Your task to perform on an android device: Set an alarm for 8am Image 0: 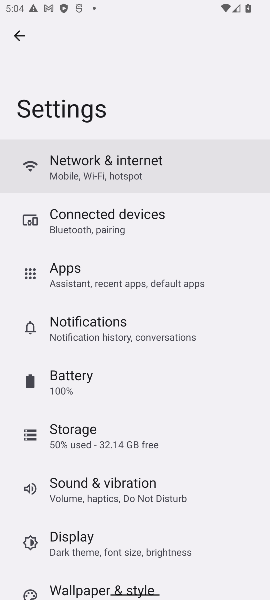
Step 0: press home button
Your task to perform on an android device: Set an alarm for 8am Image 1: 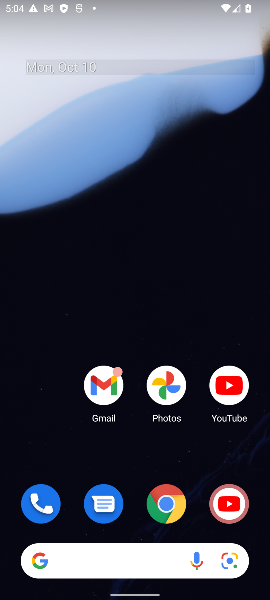
Step 1: drag from (74, 424) to (92, 65)
Your task to perform on an android device: Set an alarm for 8am Image 2: 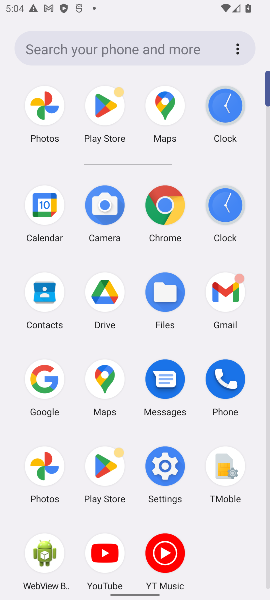
Step 2: click (224, 195)
Your task to perform on an android device: Set an alarm for 8am Image 3: 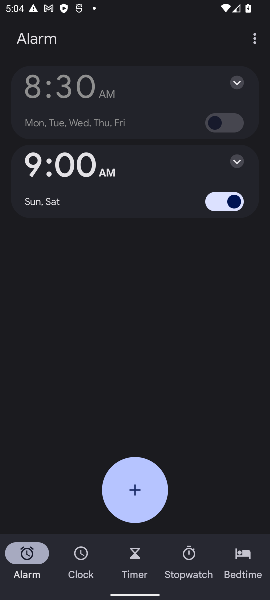
Step 3: click (139, 494)
Your task to perform on an android device: Set an alarm for 8am Image 4: 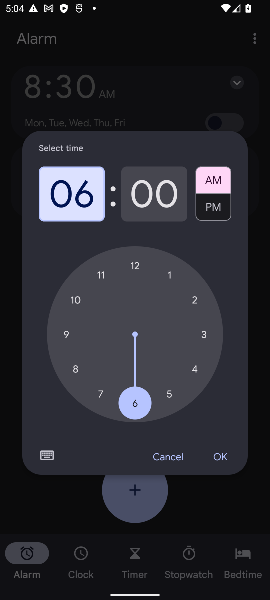
Step 4: click (73, 372)
Your task to perform on an android device: Set an alarm for 8am Image 5: 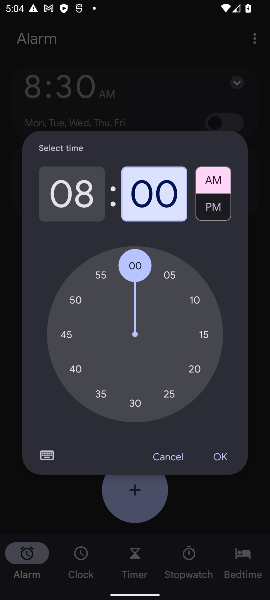
Step 5: click (222, 449)
Your task to perform on an android device: Set an alarm for 8am Image 6: 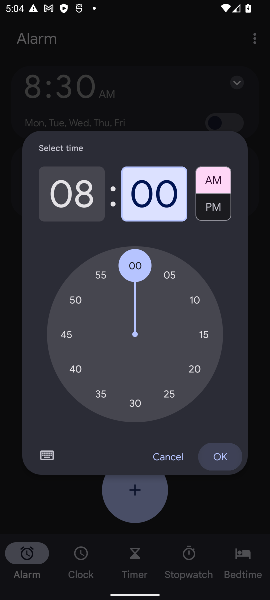
Step 6: click (223, 463)
Your task to perform on an android device: Set an alarm for 8am Image 7: 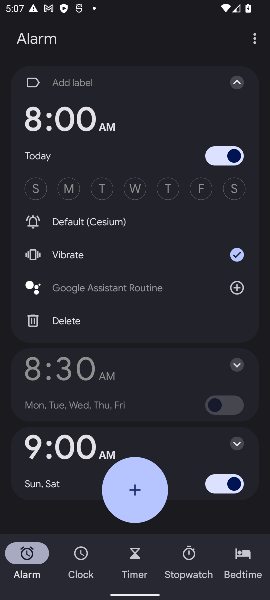
Step 7: task complete